Your task to perform on an android device: Search for razer blade on amazon.com, select the first entry, add it to the cart, then select checkout. Image 0: 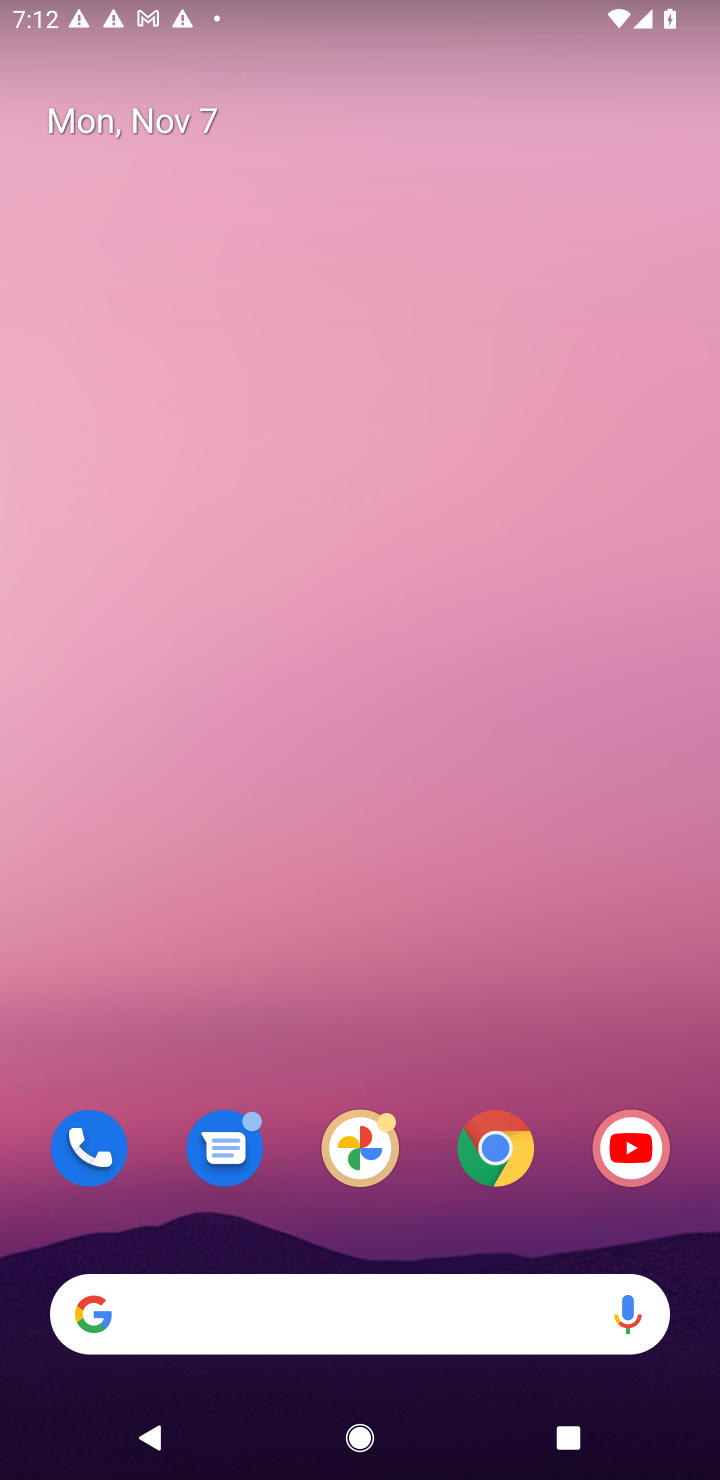
Step 0: click (490, 1142)
Your task to perform on an android device: Search for razer blade on amazon.com, select the first entry, add it to the cart, then select checkout. Image 1: 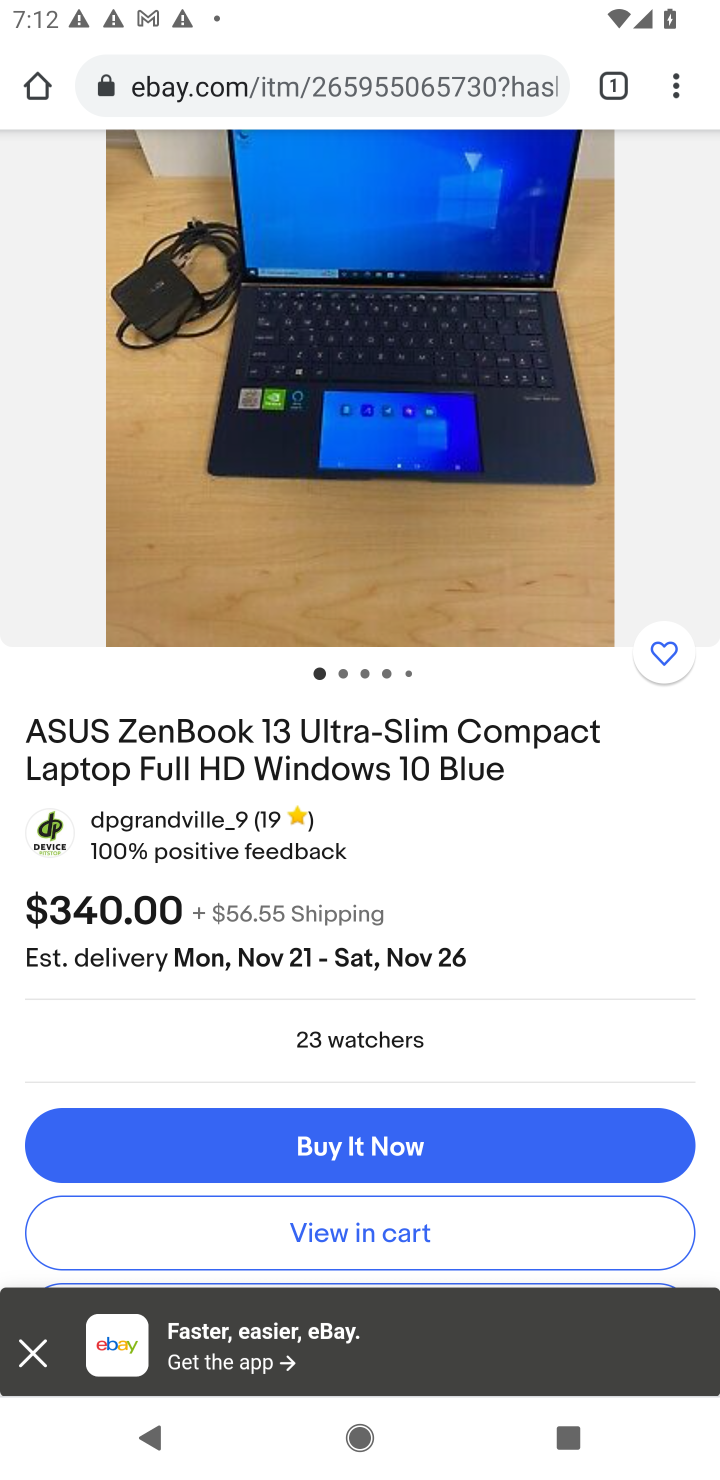
Step 1: click (402, 78)
Your task to perform on an android device: Search for razer blade on amazon.com, select the first entry, add it to the cart, then select checkout. Image 2: 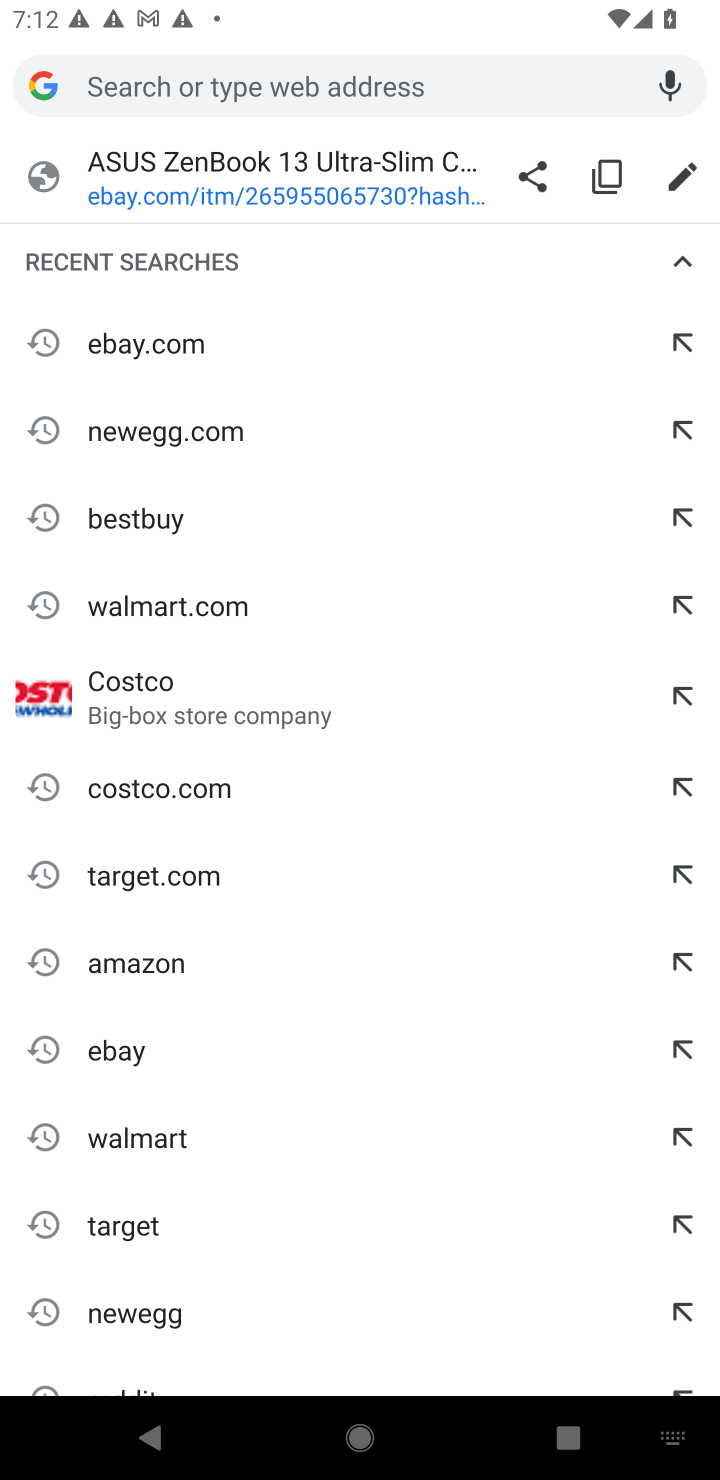
Step 2: type "amazon.com"
Your task to perform on an android device: Search for razer blade on amazon.com, select the first entry, add it to the cart, then select checkout. Image 3: 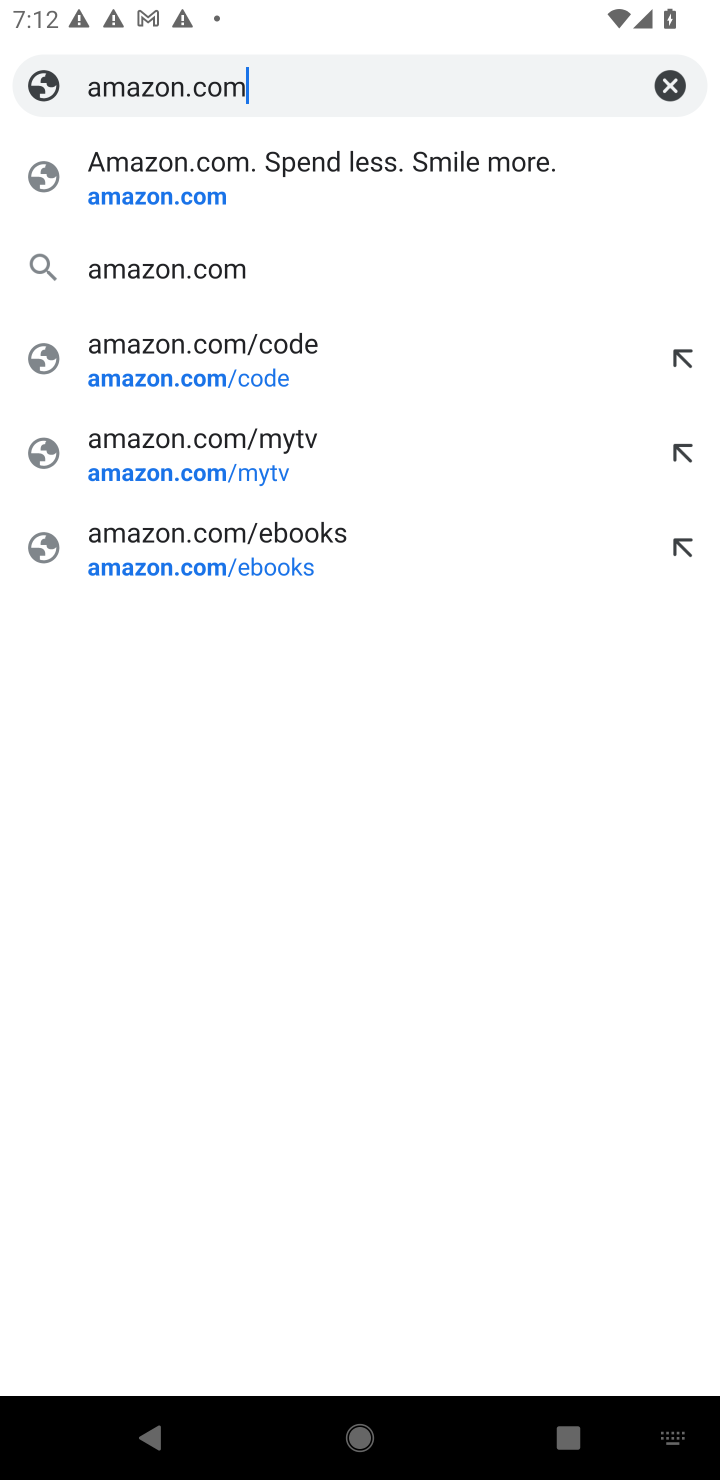
Step 3: click (224, 257)
Your task to perform on an android device: Search for razer blade on amazon.com, select the first entry, add it to the cart, then select checkout. Image 4: 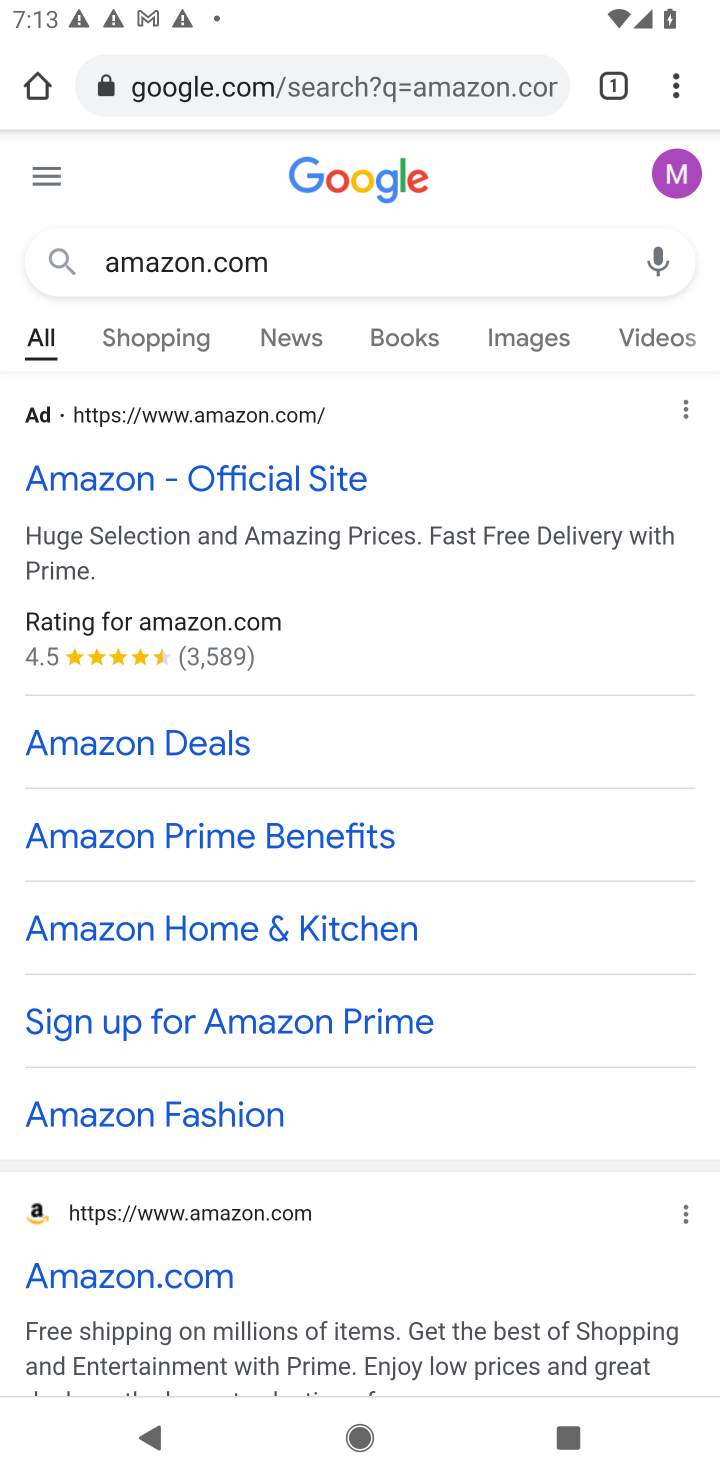
Step 4: click (237, 408)
Your task to perform on an android device: Search for razer blade on amazon.com, select the first entry, add it to the cart, then select checkout. Image 5: 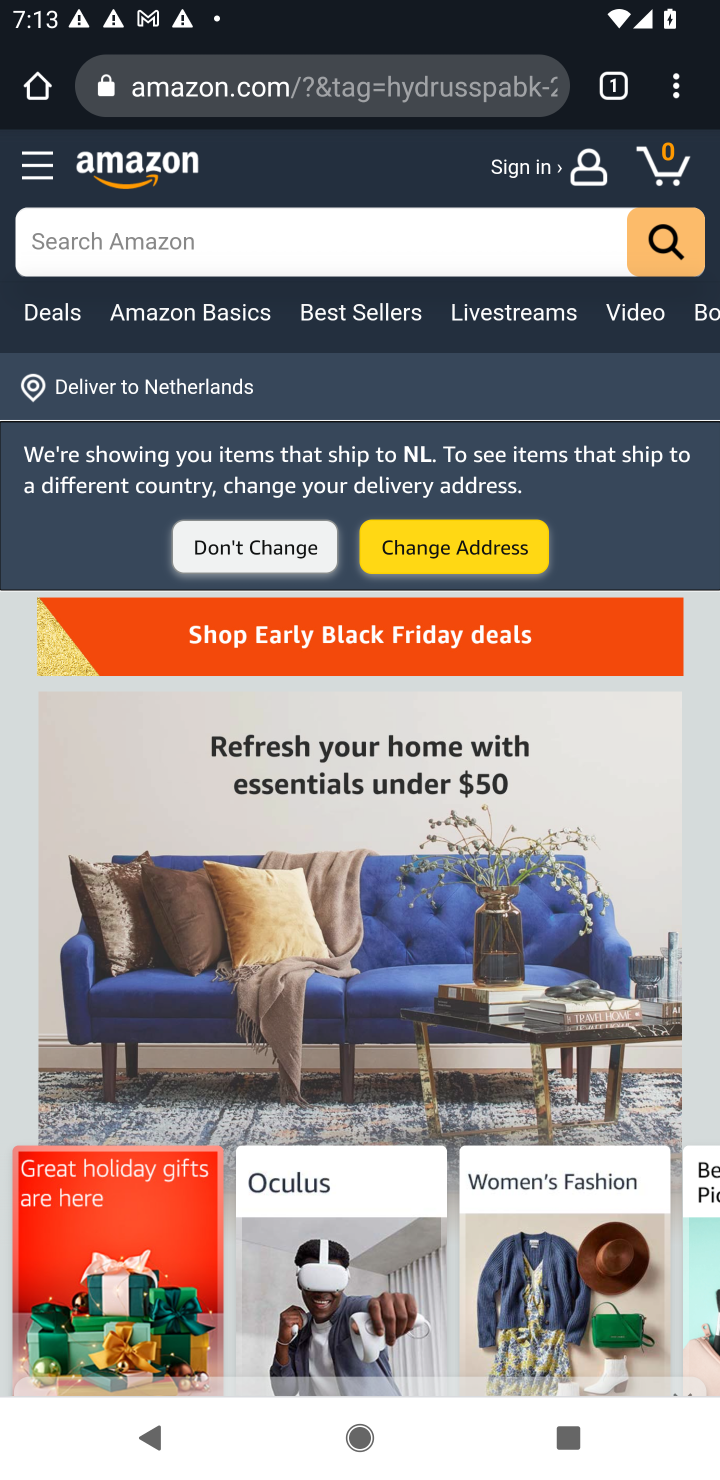
Step 5: click (320, 251)
Your task to perform on an android device: Search for razer blade on amazon.com, select the first entry, add it to the cart, then select checkout. Image 6: 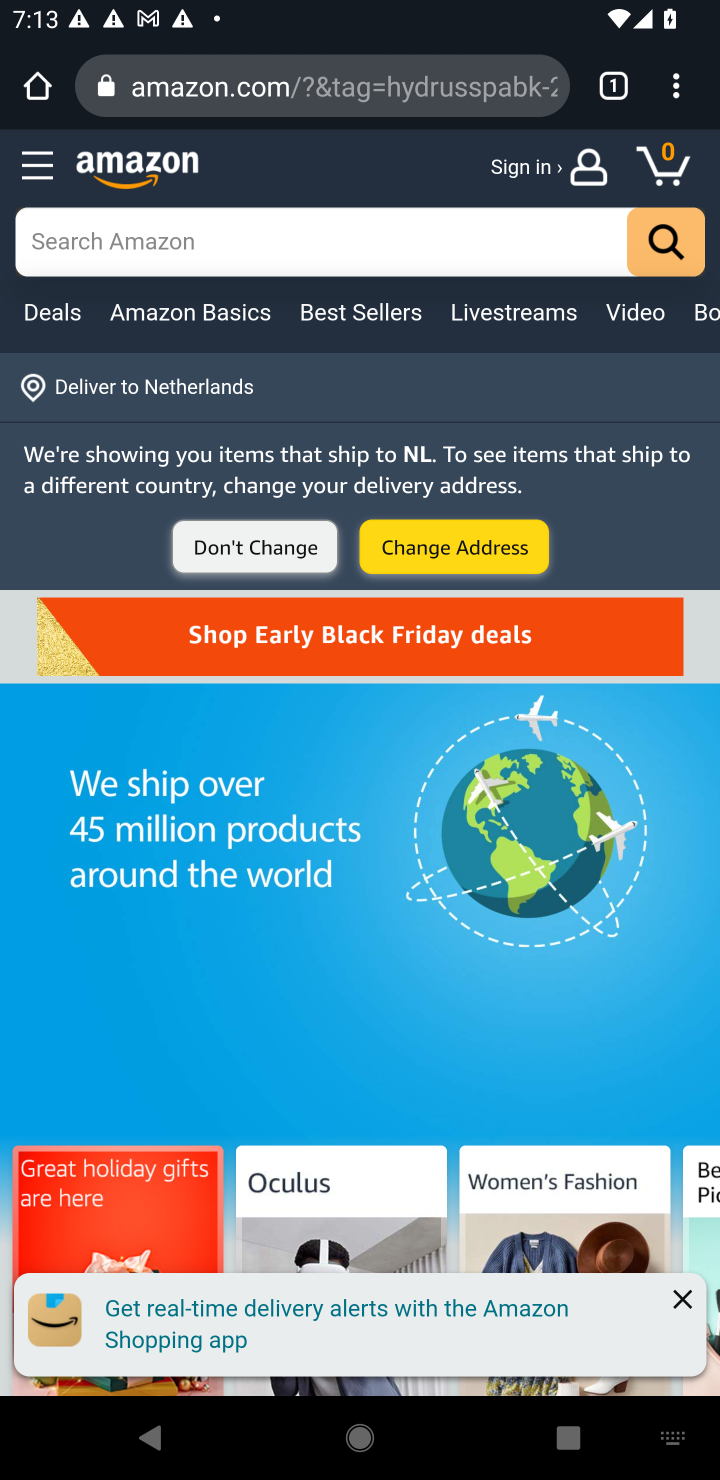
Step 6: type "razer blade"
Your task to perform on an android device: Search for razer blade on amazon.com, select the first entry, add it to the cart, then select checkout. Image 7: 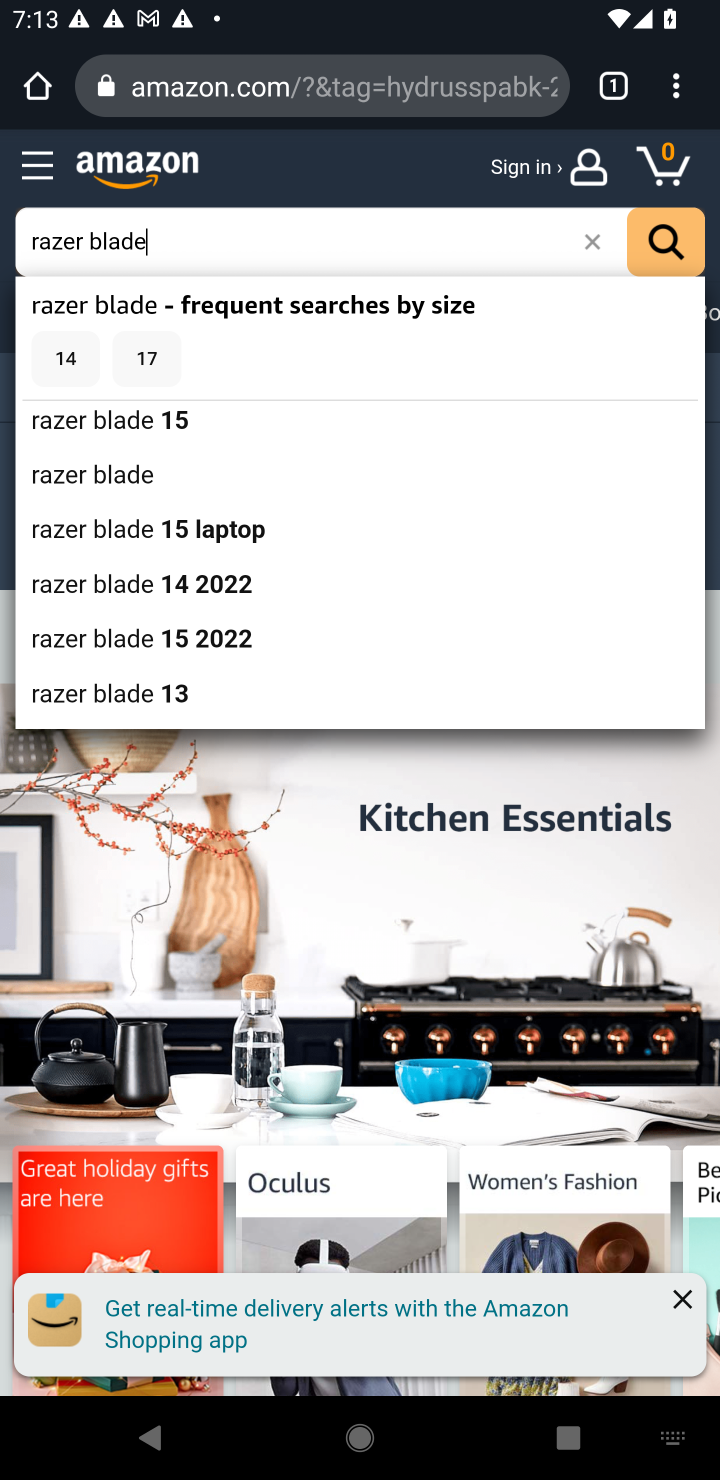
Step 7: click (93, 471)
Your task to perform on an android device: Search for razer blade on amazon.com, select the first entry, add it to the cart, then select checkout. Image 8: 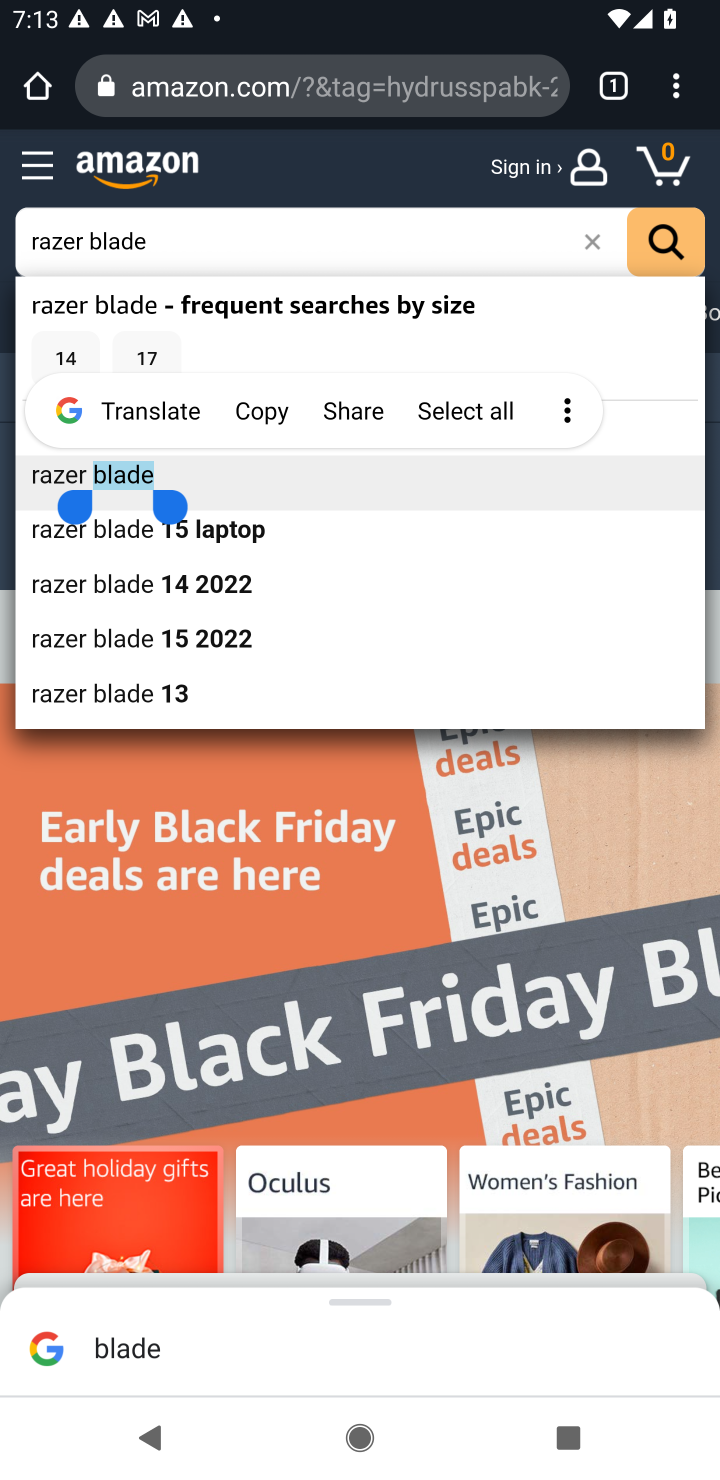
Step 8: click (64, 473)
Your task to perform on an android device: Search for razer blade on amazon.com, select the first entry, add it to the cart, then select checkout. Image 9: 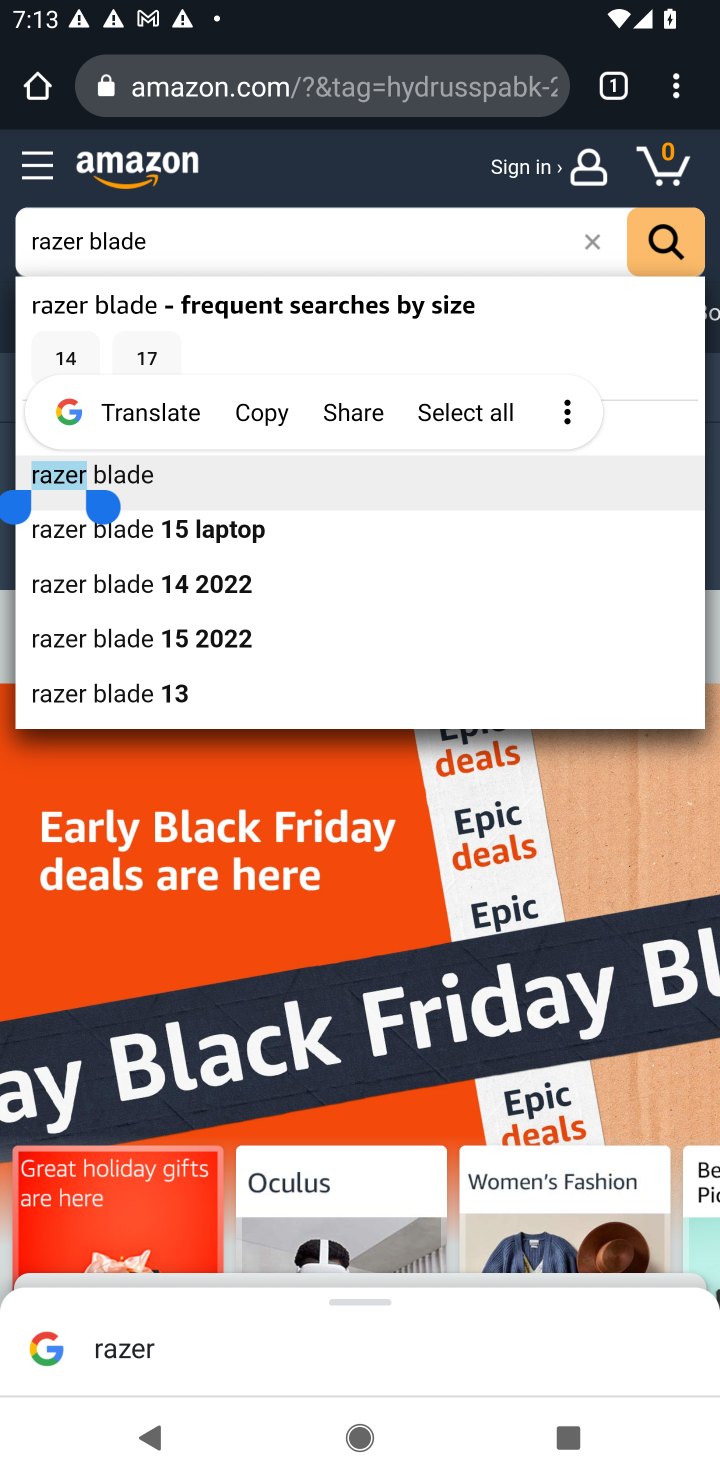
Step 9: click (122, 473)
Your task to perform on an android device: Search for razer blade on amazon.com, select the first entry, add it to the cart, then select checkout. Image 10: 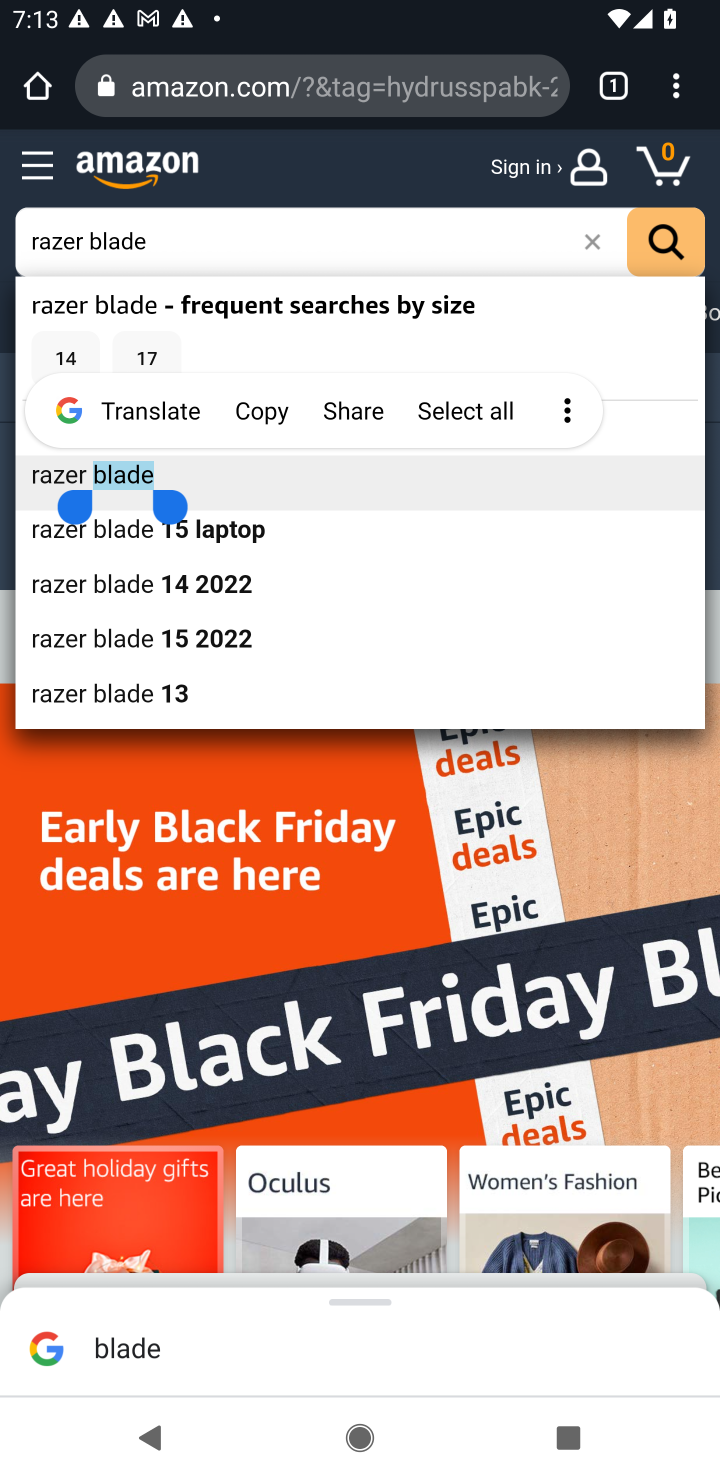
Step 10: click (678, 1347)
Your task to perform on an android device: Search for razer blade on amazon.com, select the first entry, add it to the cart, then select checkout. Image 11: 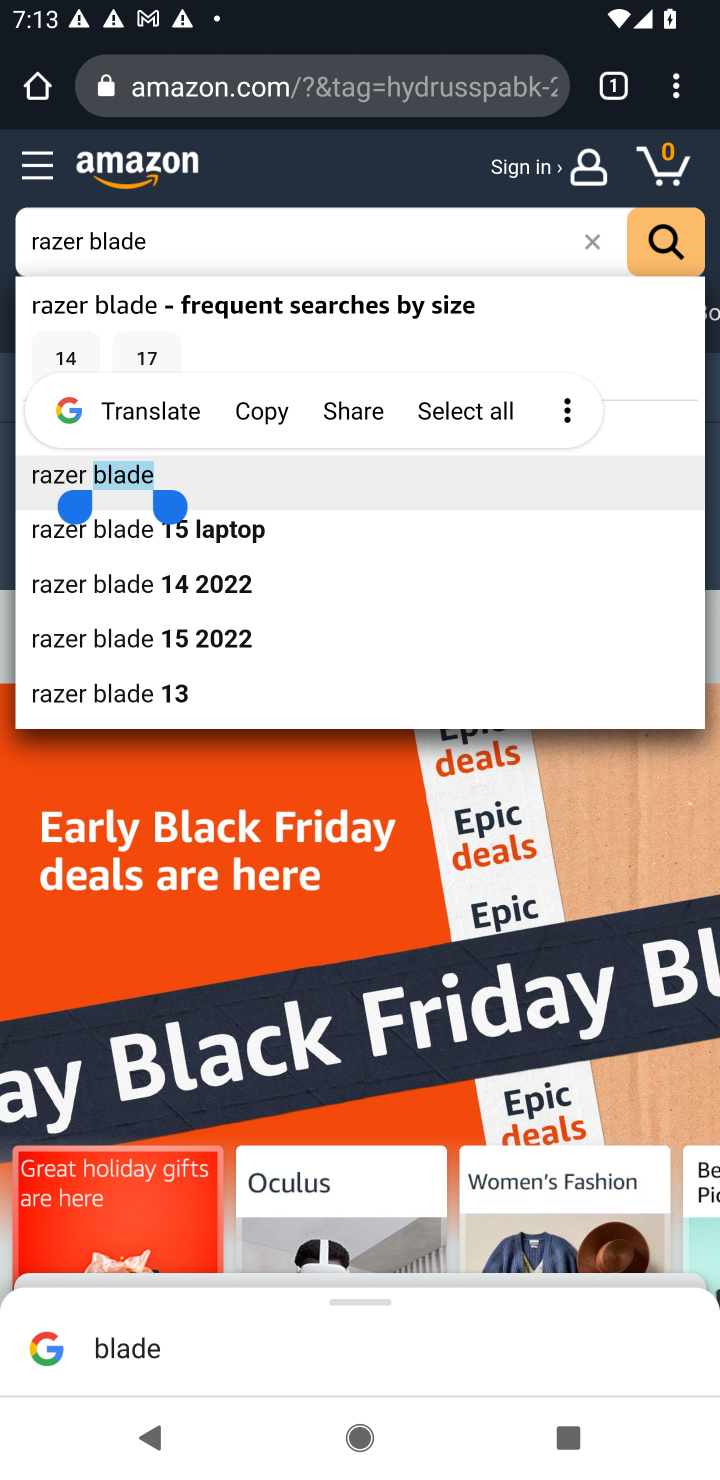
Step 11: click (496, 228)
Your task to perform on an android device: Search for razer blade on amazon.com, select the first entry, add it to the cart, then select checkout. Image 12: 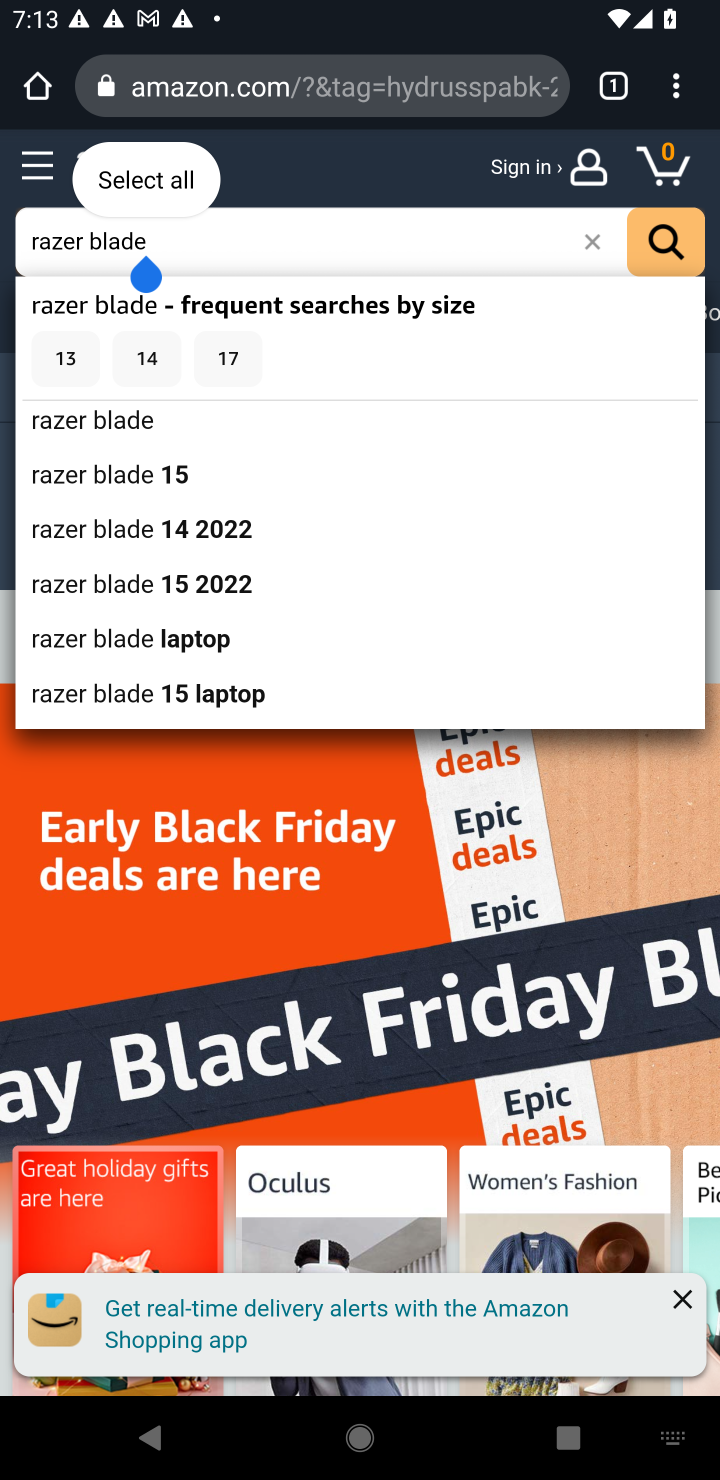
Step 12: click (124, 418)
Your task to perform on an android device: Search for razer blade on amazon.com, select the first entry, add it to the cart, then select checkout. Image 13: 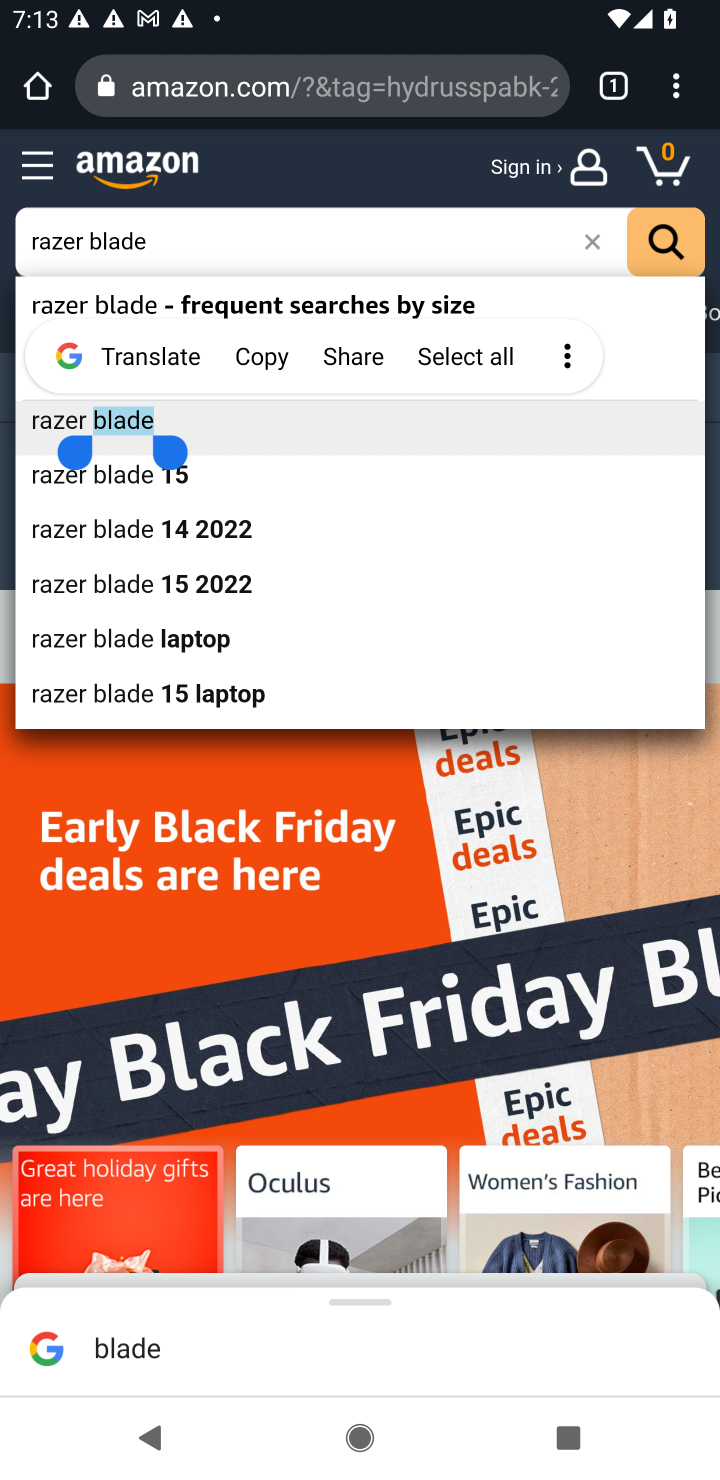
Step 13: click (87, 419)
Your task to perform on an android device: Search for razer blade on amazon.com, select the first entry, add it to the cart, then select checkout. Image 14: 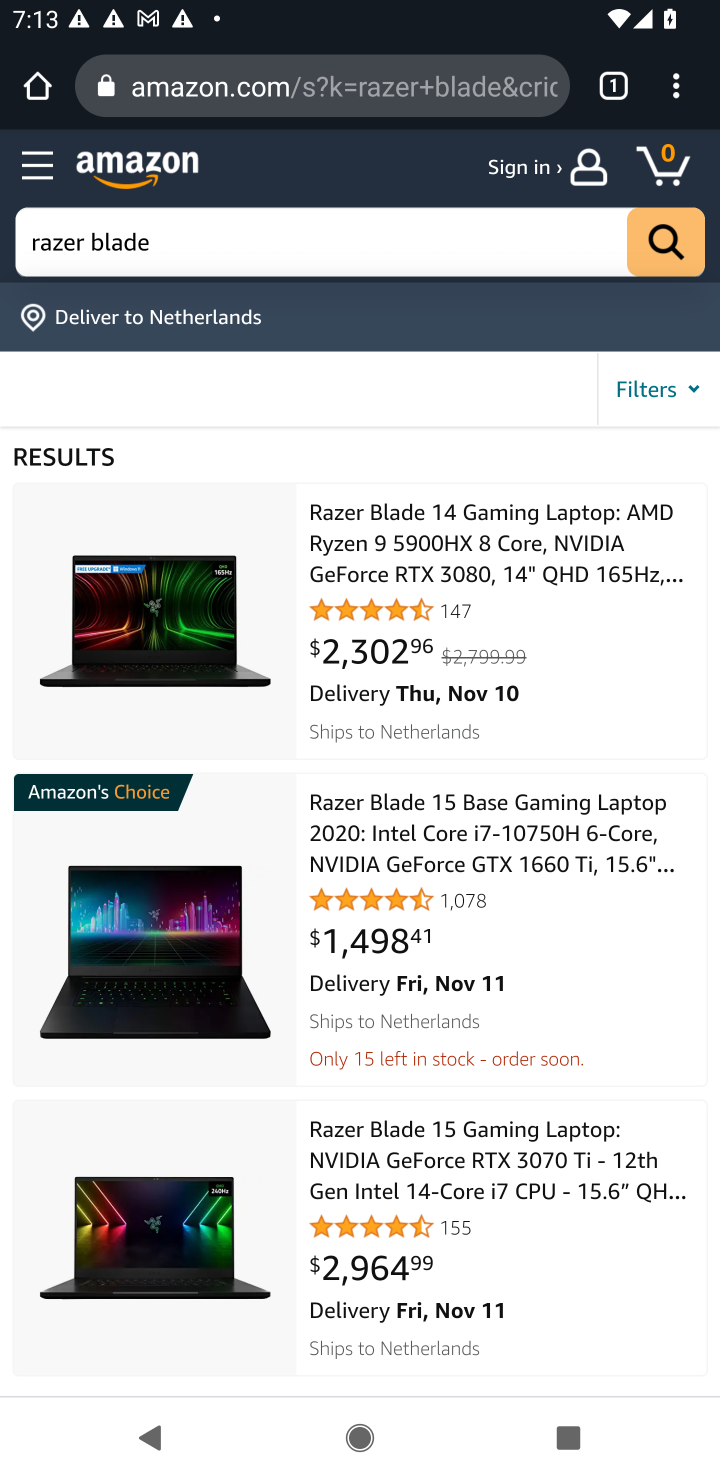
Step 14: click (178, 616)
Your task to perform on an android device: Search for razer blade on amazon.com, select the first entry, add it to the cart, then select checkout. Image 15: 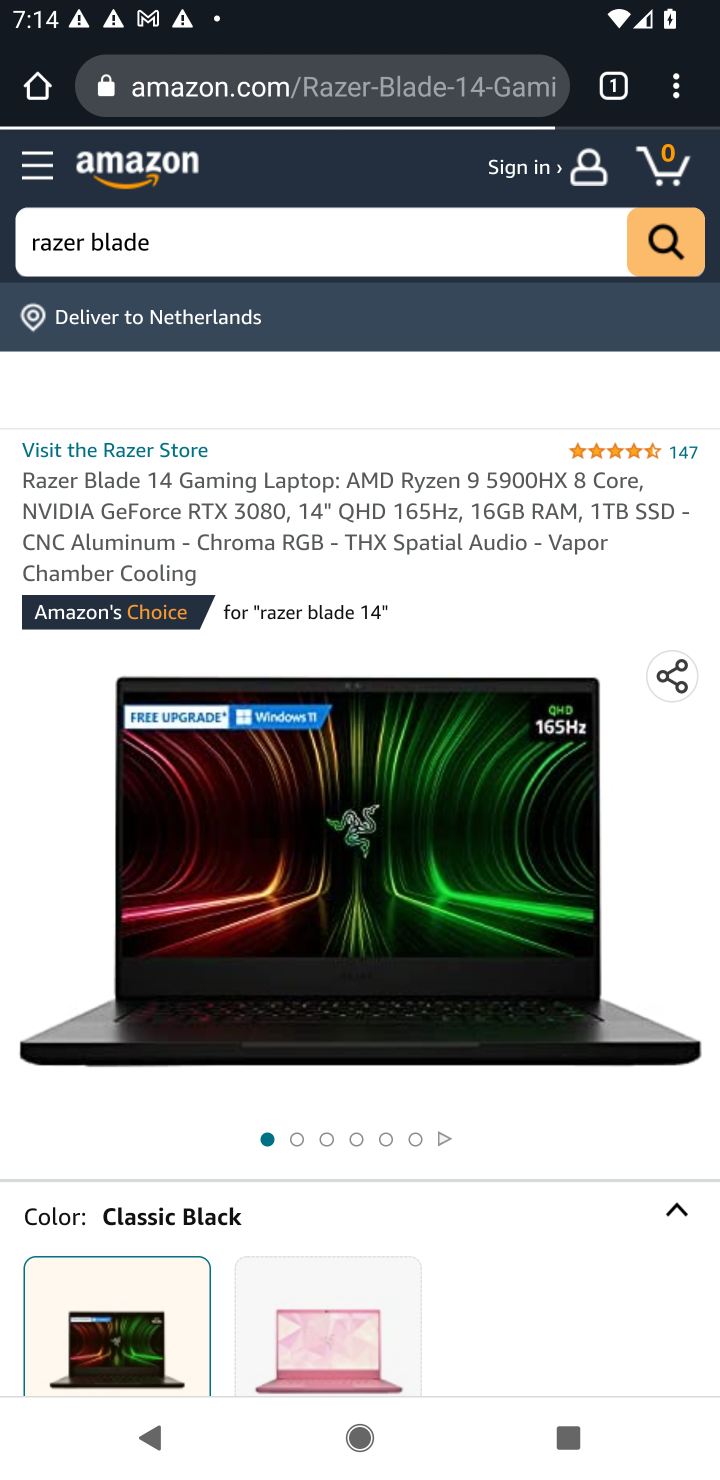
Step 15: drag from (512, 634) to (538, 332)
Your task to perform on an android device: Search for razer blade on amazon.com, select the first entry, add it to the cart, then select checkout. Image 16: 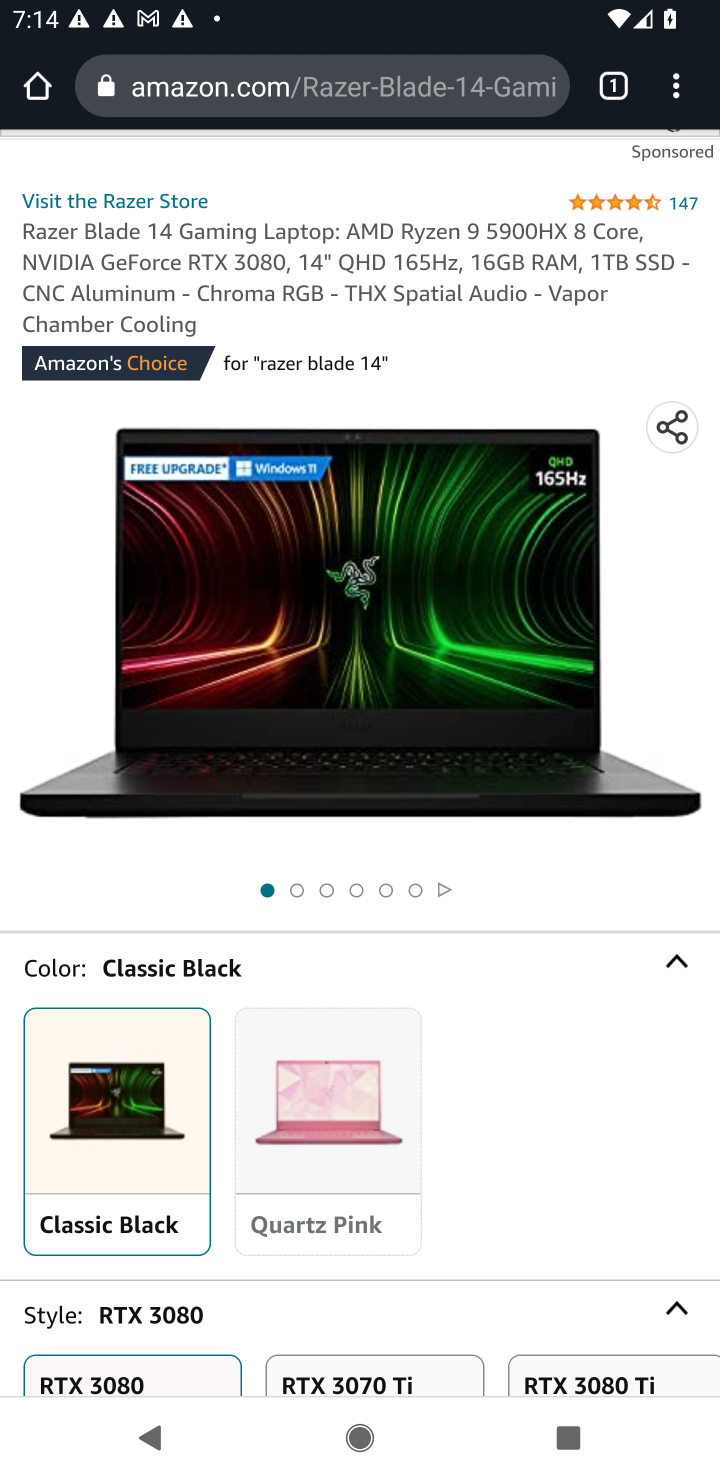
Step 16: drag from (630, 884) to (650, 502)
Your task to perform on an android device: Search for razer blade on amazon.com, select the first entry, add it to the cart, then select checkout. Image 17: 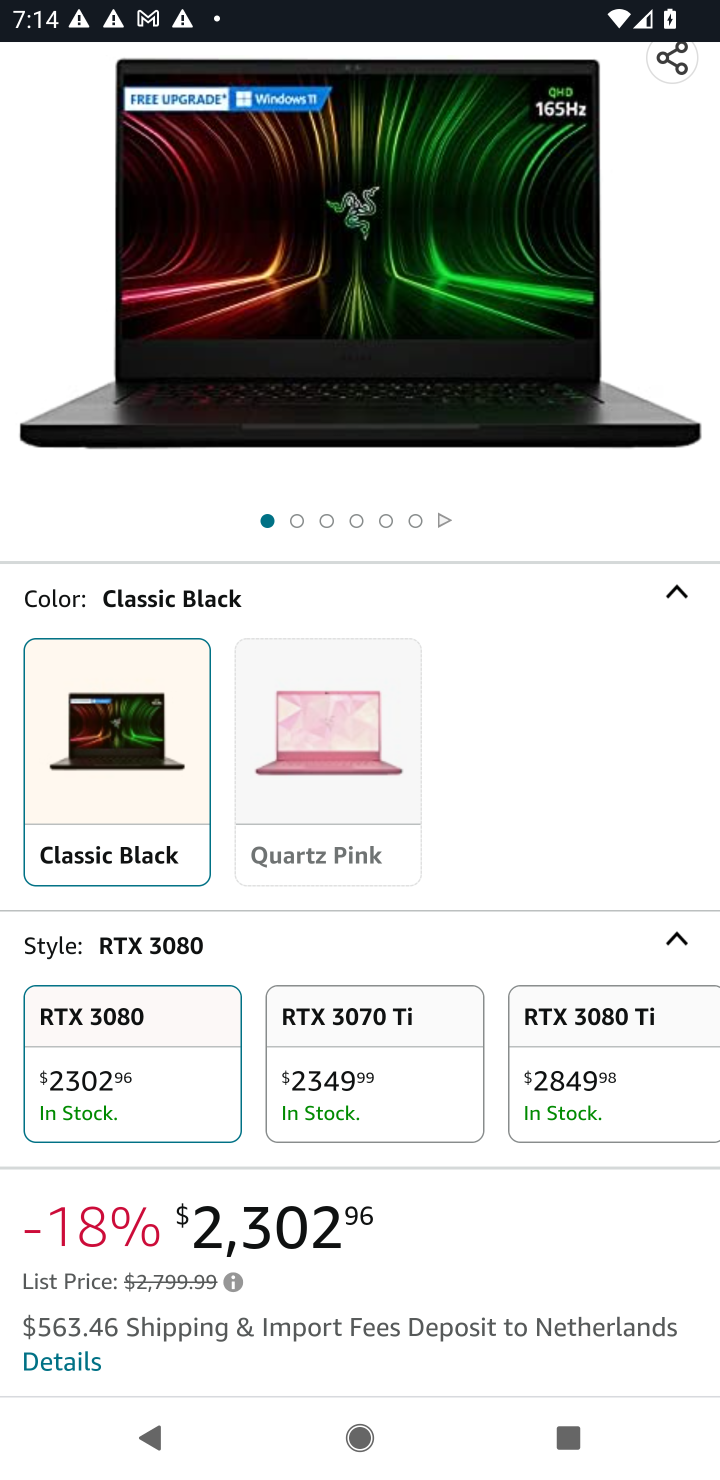
Step 17: drag from (606, 701) to (715, 380)
Your task to perform on an android device: Search for razer blade on amazon.com, select the first entry, add it to the cart, then select checkout. Image 18: 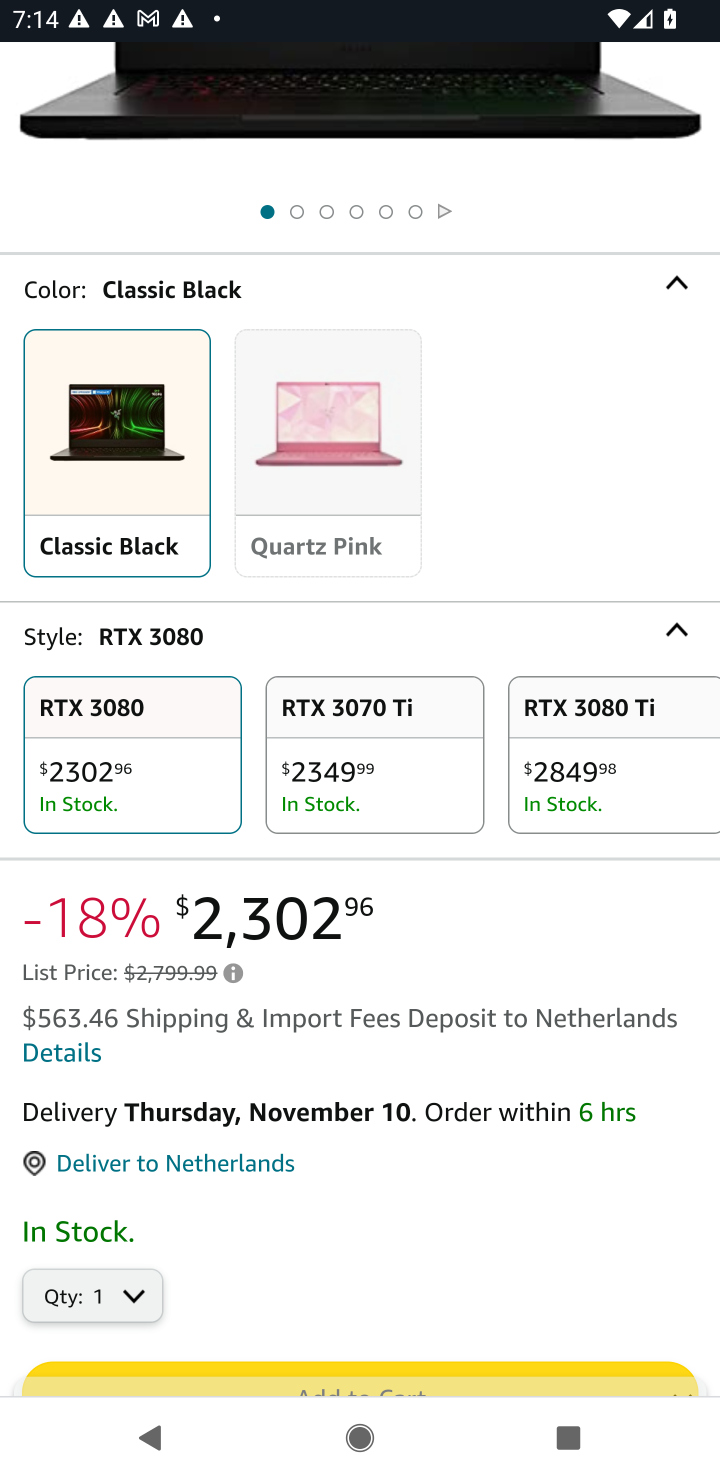
Step 18: drag from (576, 1025) to (559, 465)
Your task to perform on an android device: Search for razer blade on amazon.com, select the first entry, add it to the cart, then select checkout. Image 19: 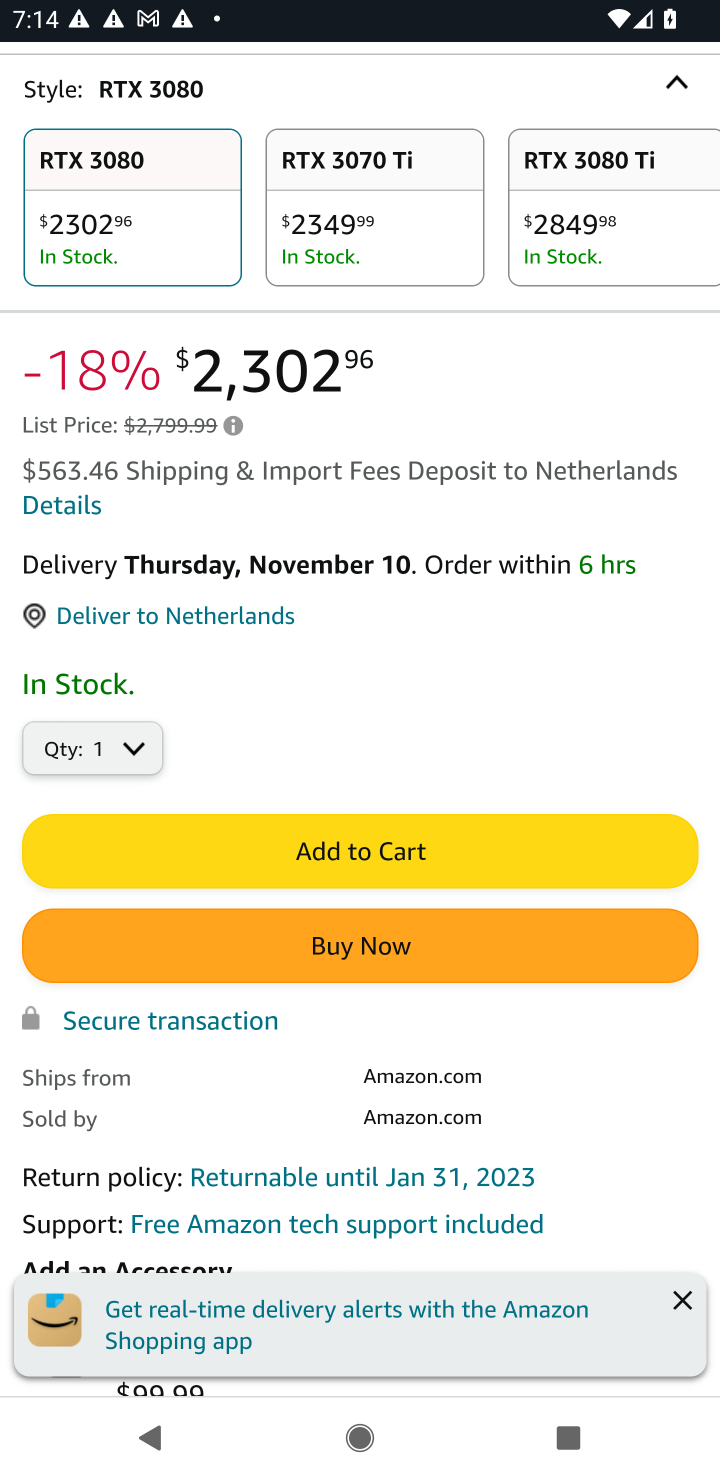
Step 19: click (484, 851)
Your task to perform on an android device: Search for razer blade on amazon.com, select the first entry, add it to the cart, then select checkout. Image 20: 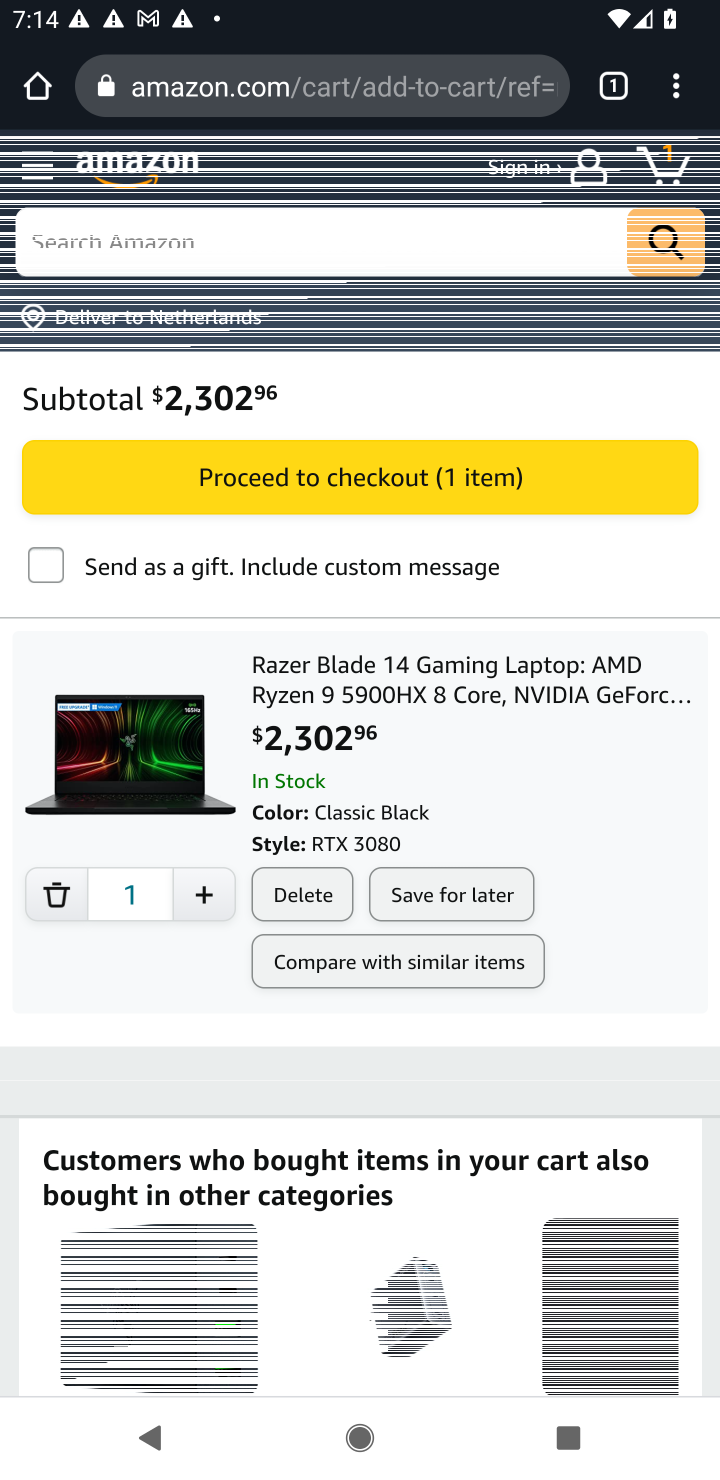
Step 20: click (359, 477)
Your task to perform on an android device: Search for razer blade on amazon.com, select the first entry, add it to the cart, then select checkout. Image 21: 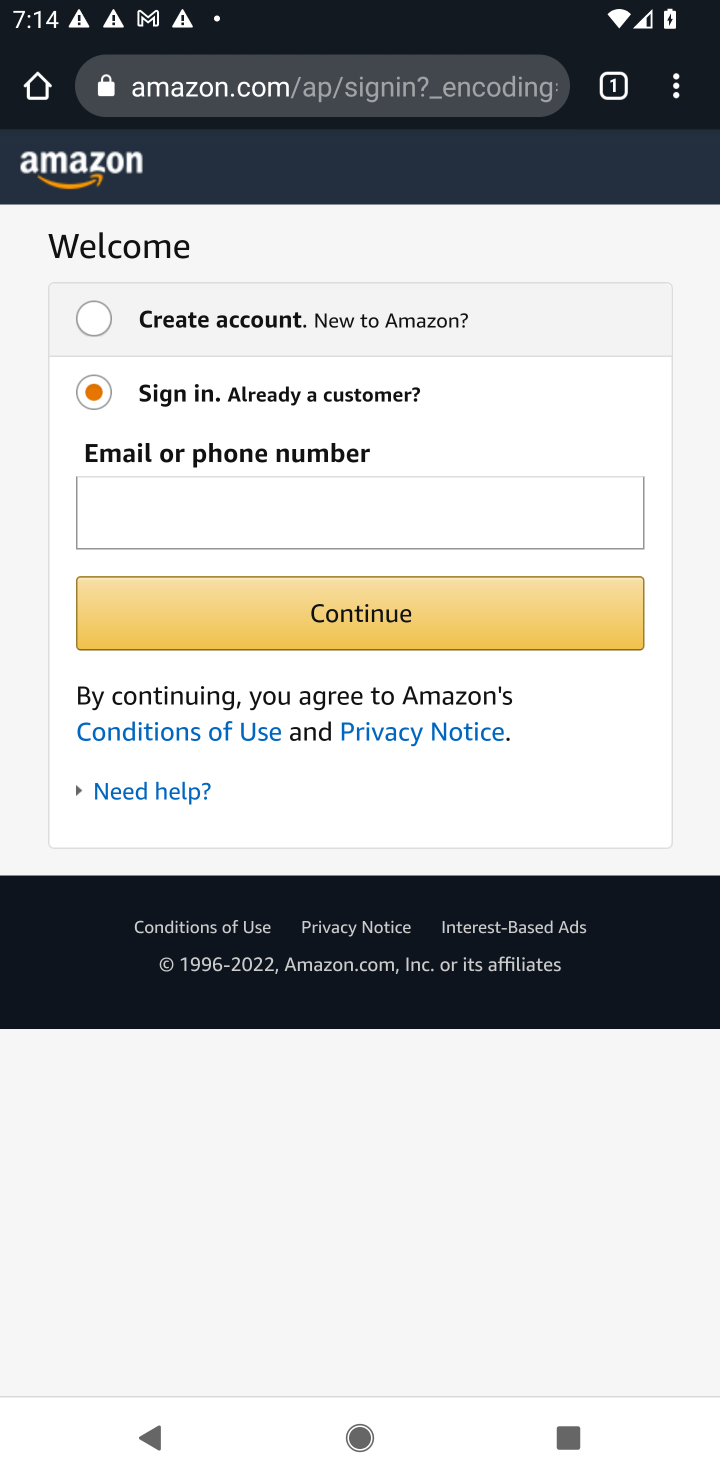
Step 21: task complete